Your task to perform on an android device: Open the map Image 0: 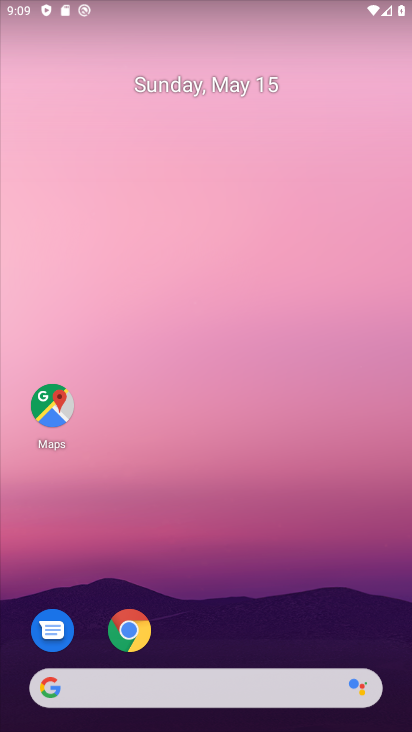
Step 0: click (58, 417)
Your task to perform on an android device: Open the map Image 1: 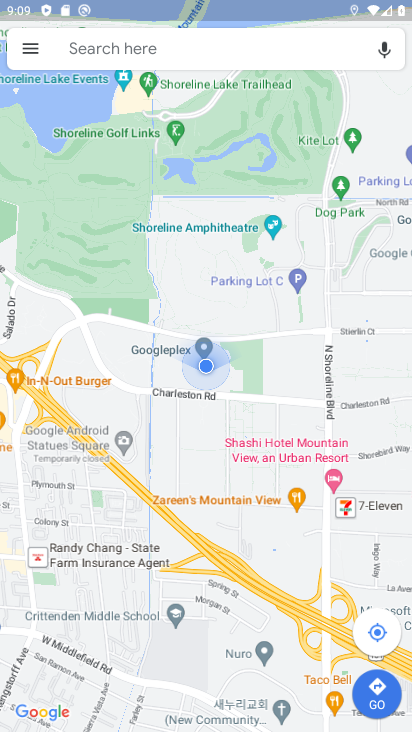
Step 1: task complete